Your task to perform on an android device: Search for vegetarian restaurants on Maps Image 0: 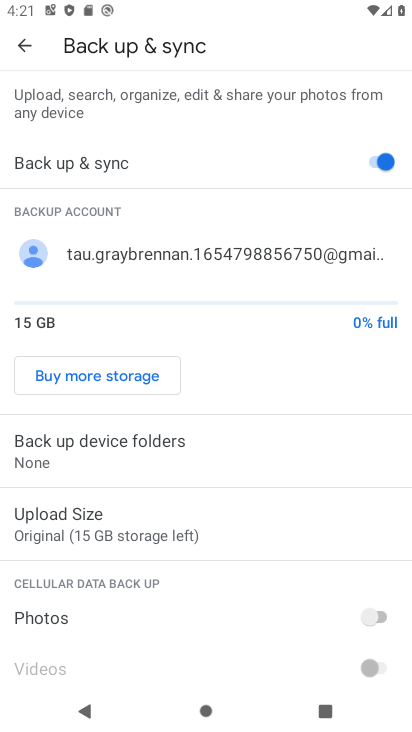
Step 0: press home button
Your task to perform on an android device: Search for vegetarian restaurants on Maps Image 1: 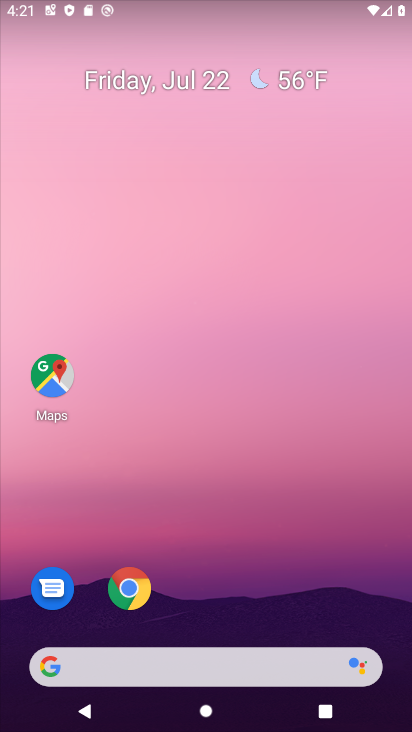
Step 1: click (60, 410)
Your task to perform on an android device: Search for vegetarian restaurants on Maps Image 2: 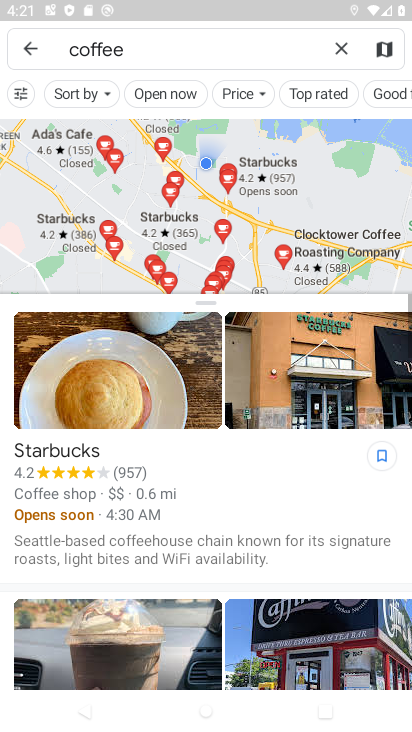
Step 2: click (335, 50)
Your task to perform on an android device: Search for vegetarian restaurants on Maps Image 3: 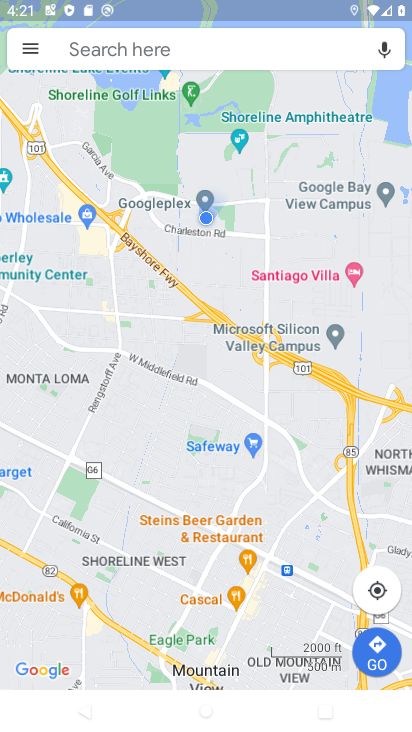
Step 3: click (172, 47)
Your task to perform on an android device: Search for vegetarian restaurants on Maps Image 4: 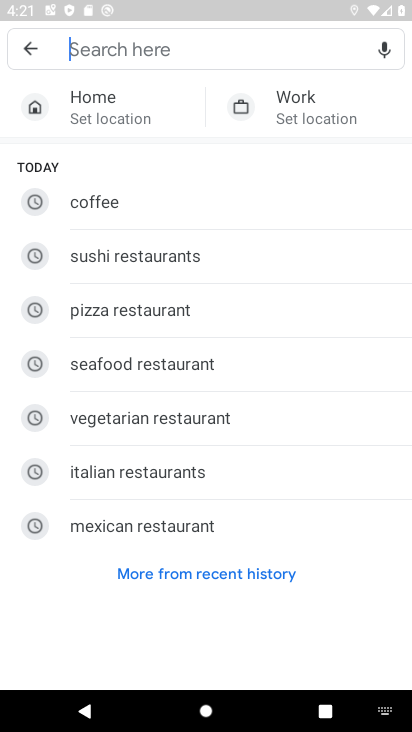
Step 4: click (201, 410)
Your task to perform on an android device: Search for vegetarian restaurants on Maps Image 5: 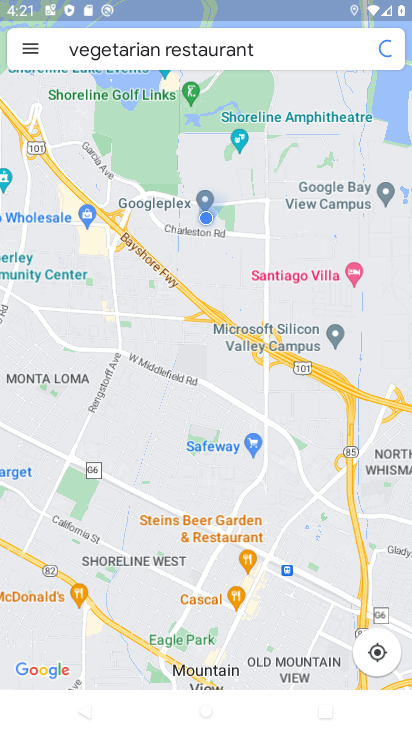
Step 5: task complete